Your task to perform on an android device: check storage Image 0: 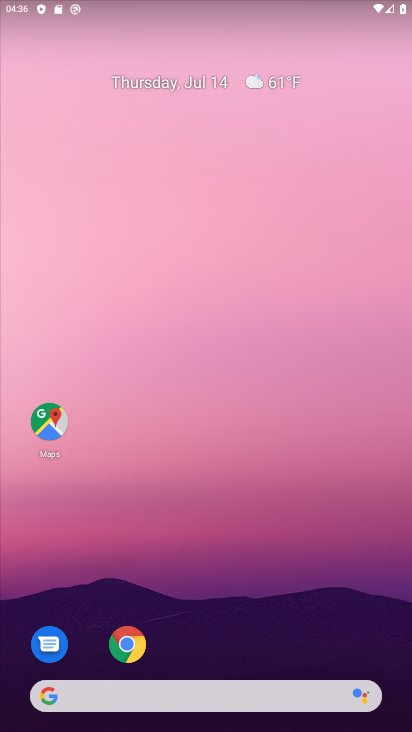
Step 0: drag from (298, 670) to (274, 0)
Your task to perform on an android device: check storage Image 1: 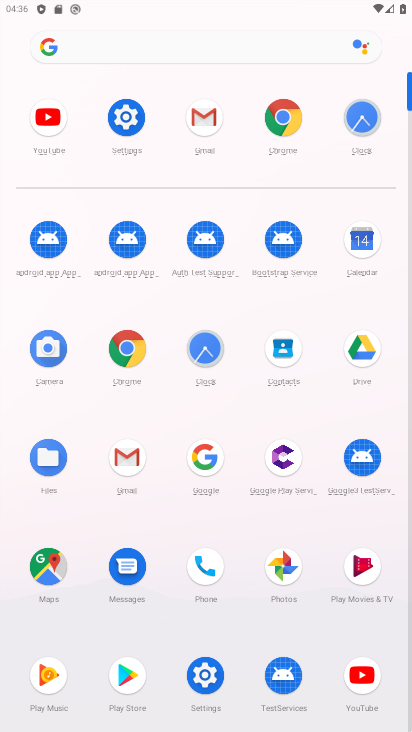
Step 1: click (128, 126)
Your task to perform on an android device: check storage Image 2: 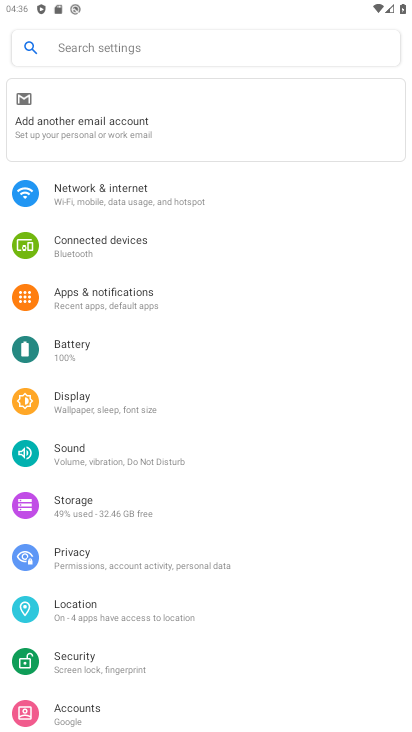
Step 2: click (75, 503)
Your task to perform on an android device: check storage Image 3: 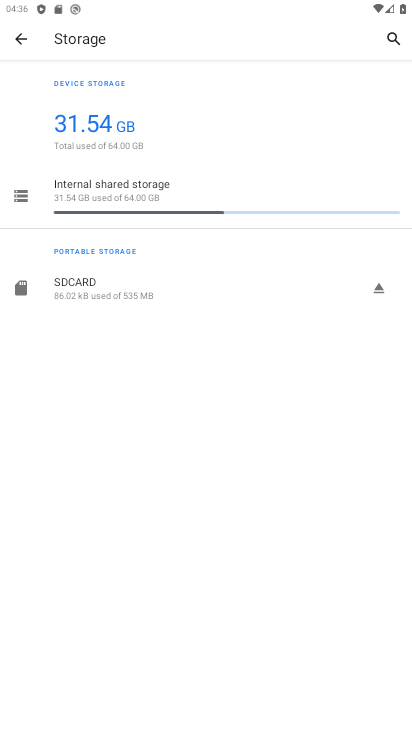
Step 3: task complete